Your task to perform on an android device: uninstall "Microsoft Authenticator" Image 0: 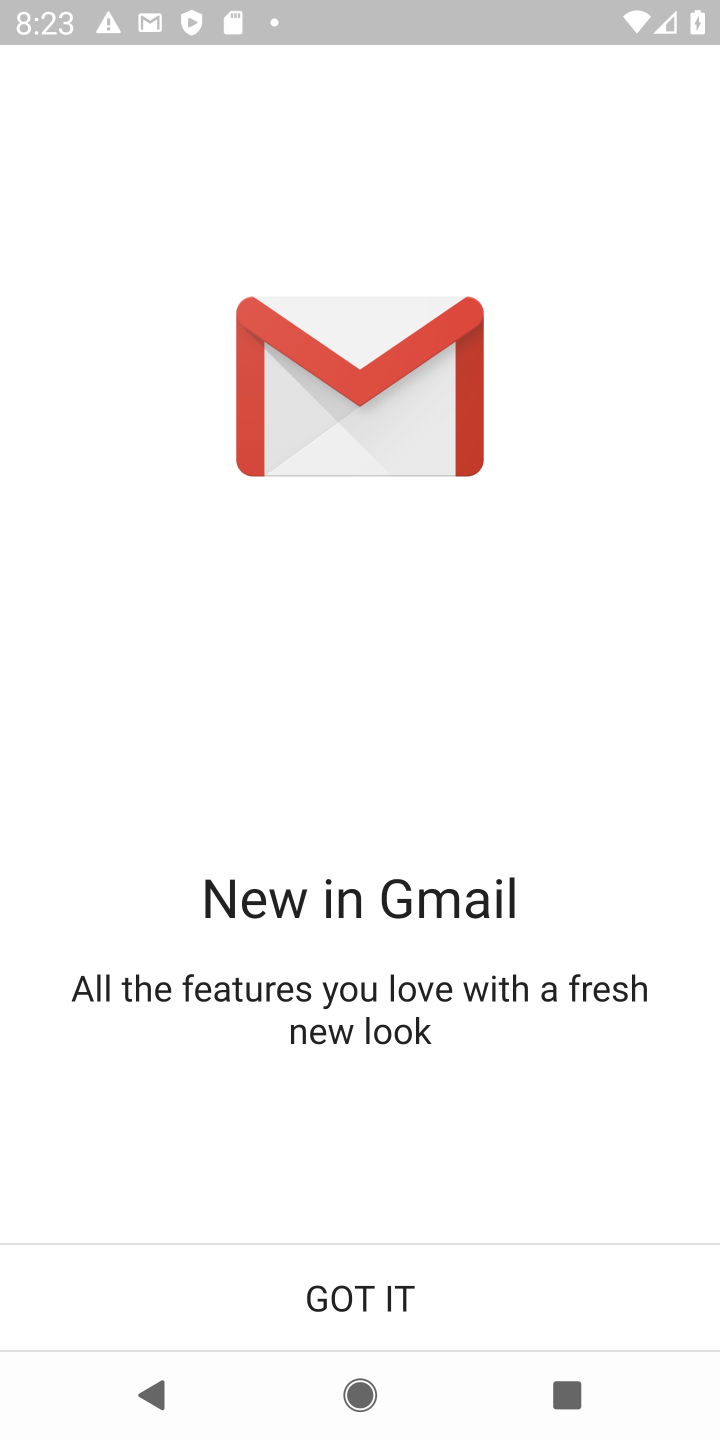
Step 0: press home button
Your task to perform on an android device: uninstall "Microsoft Authenticator" Image 1: 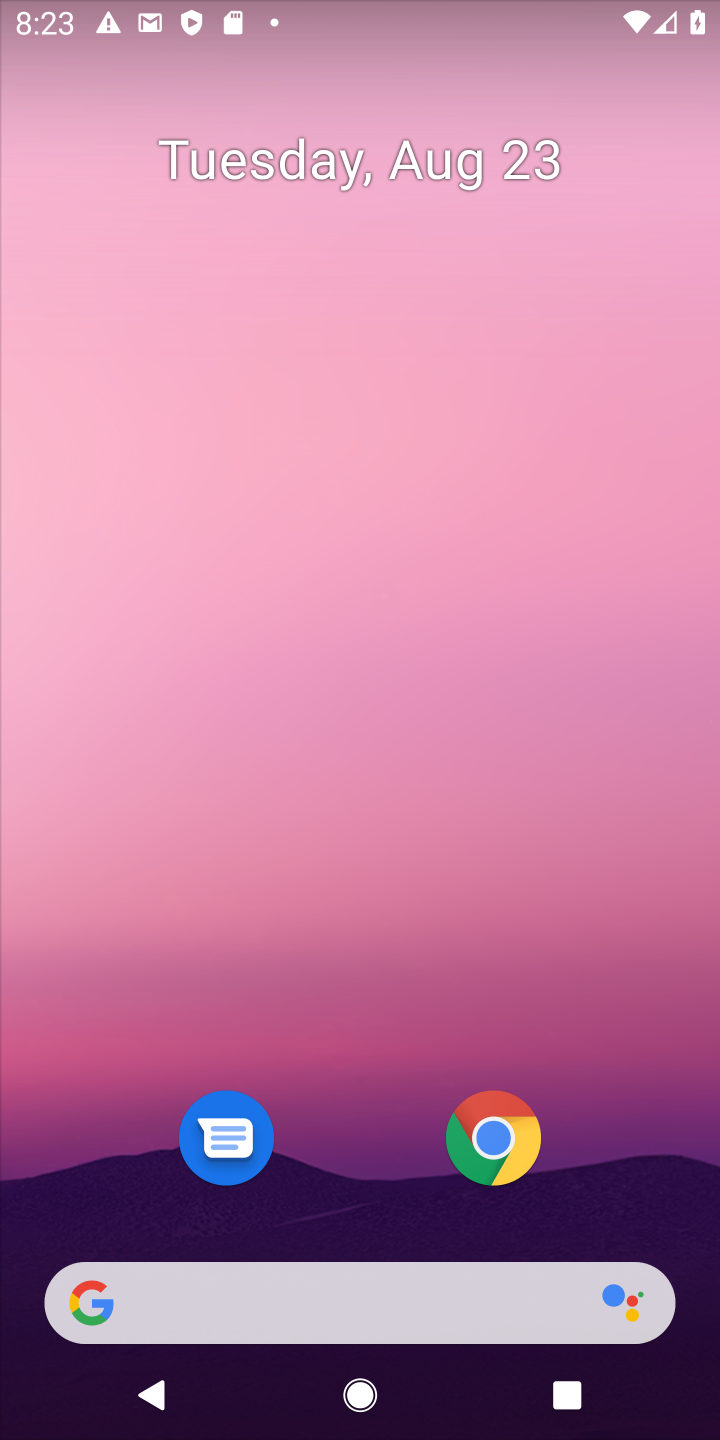
Step 1: drag from (629, 1127) to (643, 123)
Your task to perform on an android device: uninstall "Microsoft Authenticator" Image 2: 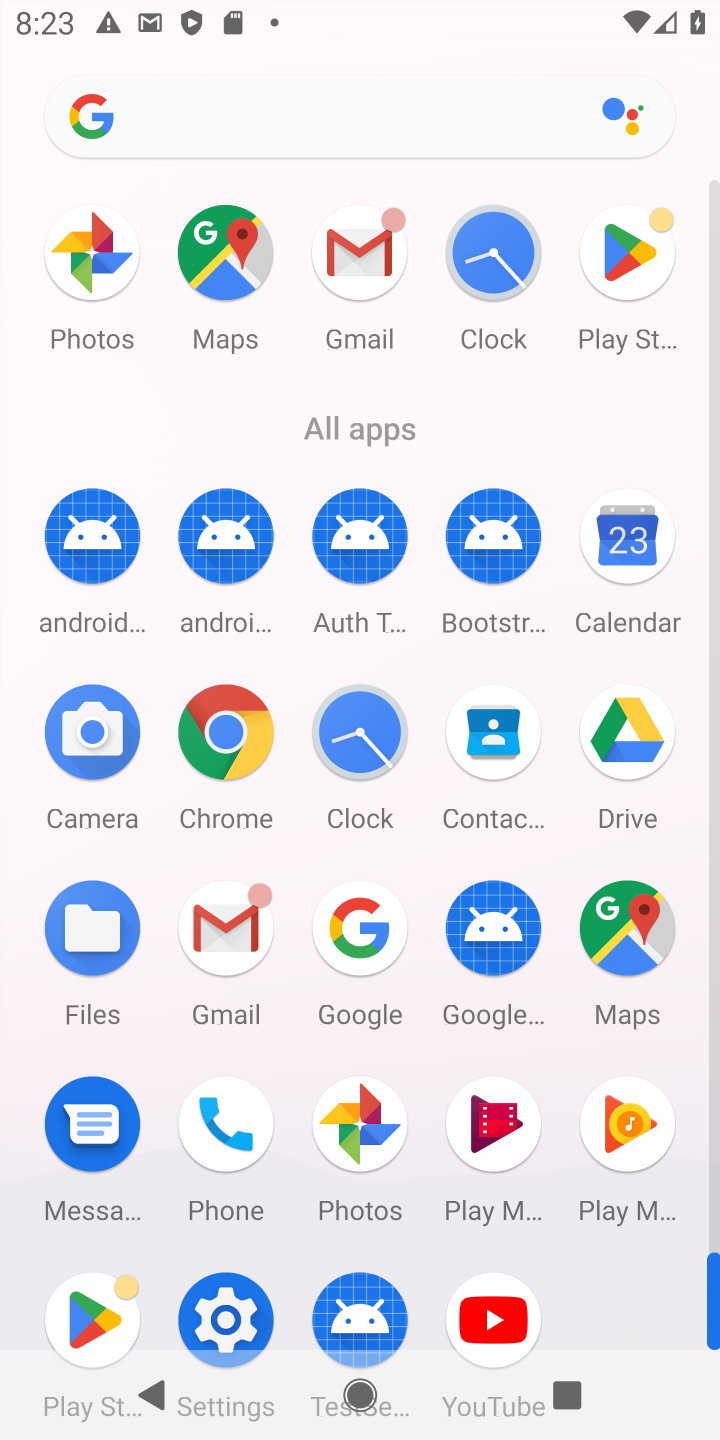
Step 2: click (616, 254)
Your task to perform on an android device: uninstall "Microsoft Authenticator" Image 3: 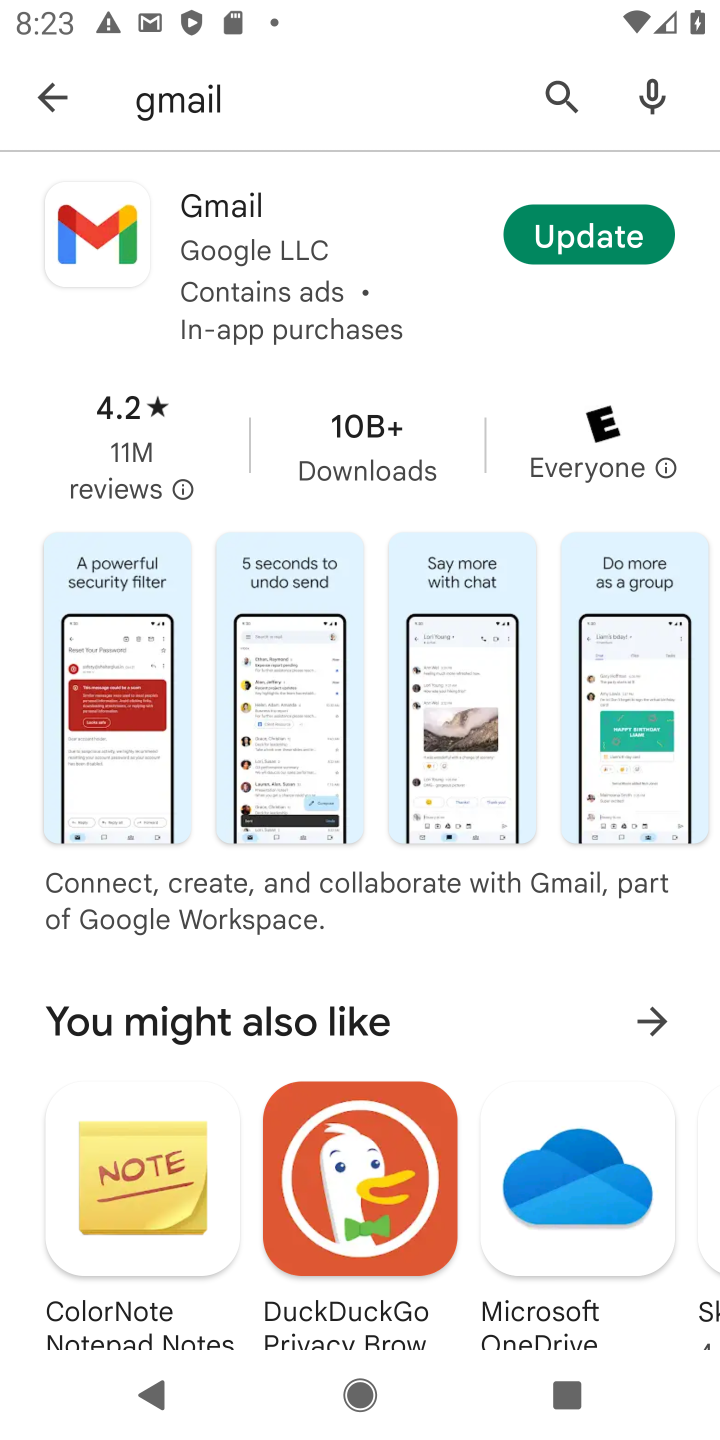
Step 3: press back button
Your task to perform on an android device: uninstall "Microsoft Authenticator" Image 4: 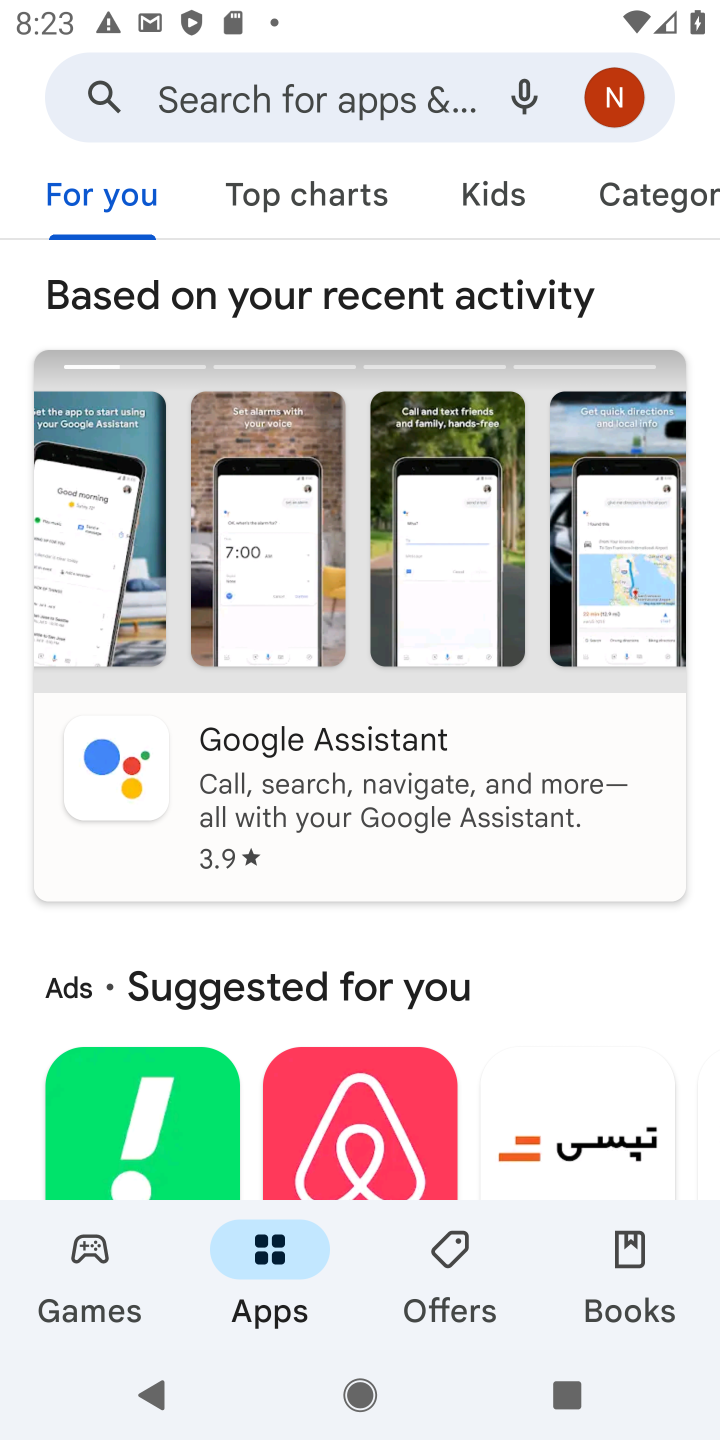
Step 4: click (359, 102)
Your task to perform on an android device: uninstall "Microsoft Authenticator" Image 5: 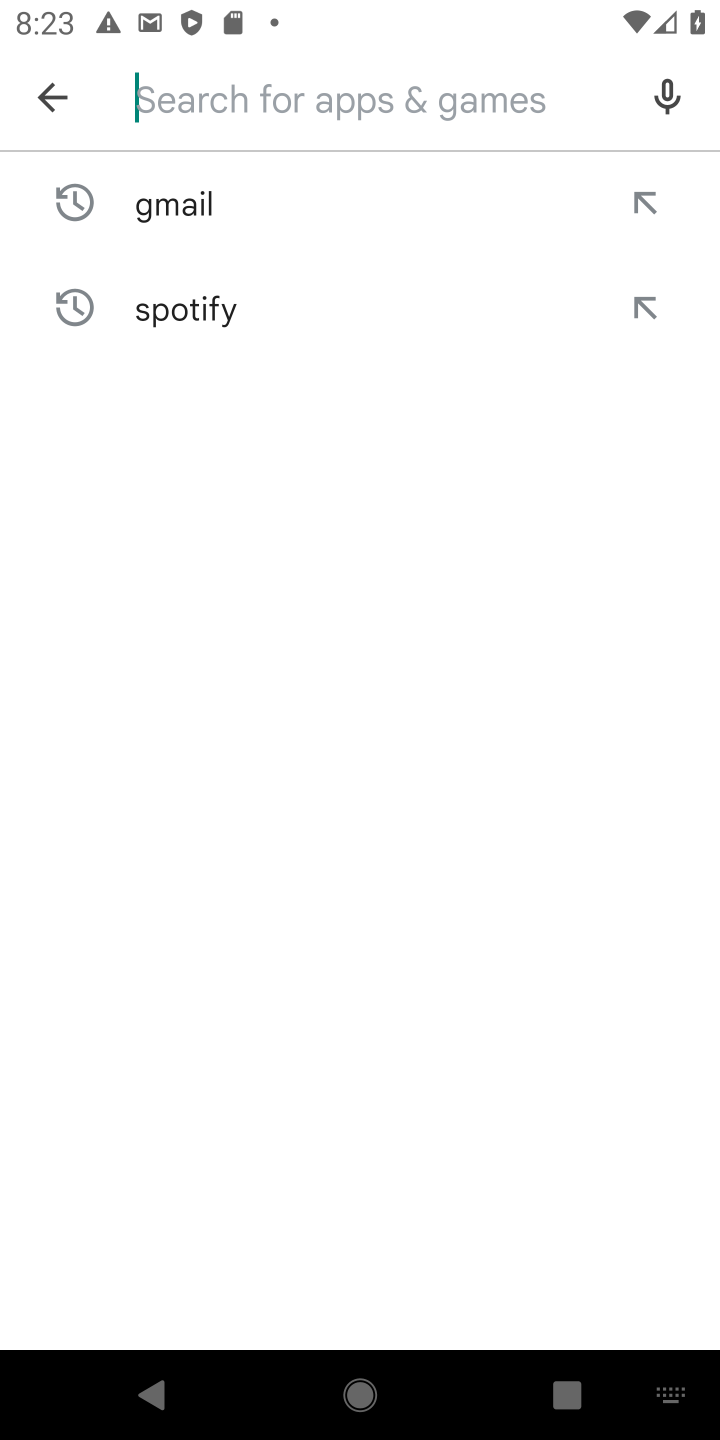
Step 5: press enter
Your task to perform on an android device: uninstall "Microsoft Authenticator" Image 6: 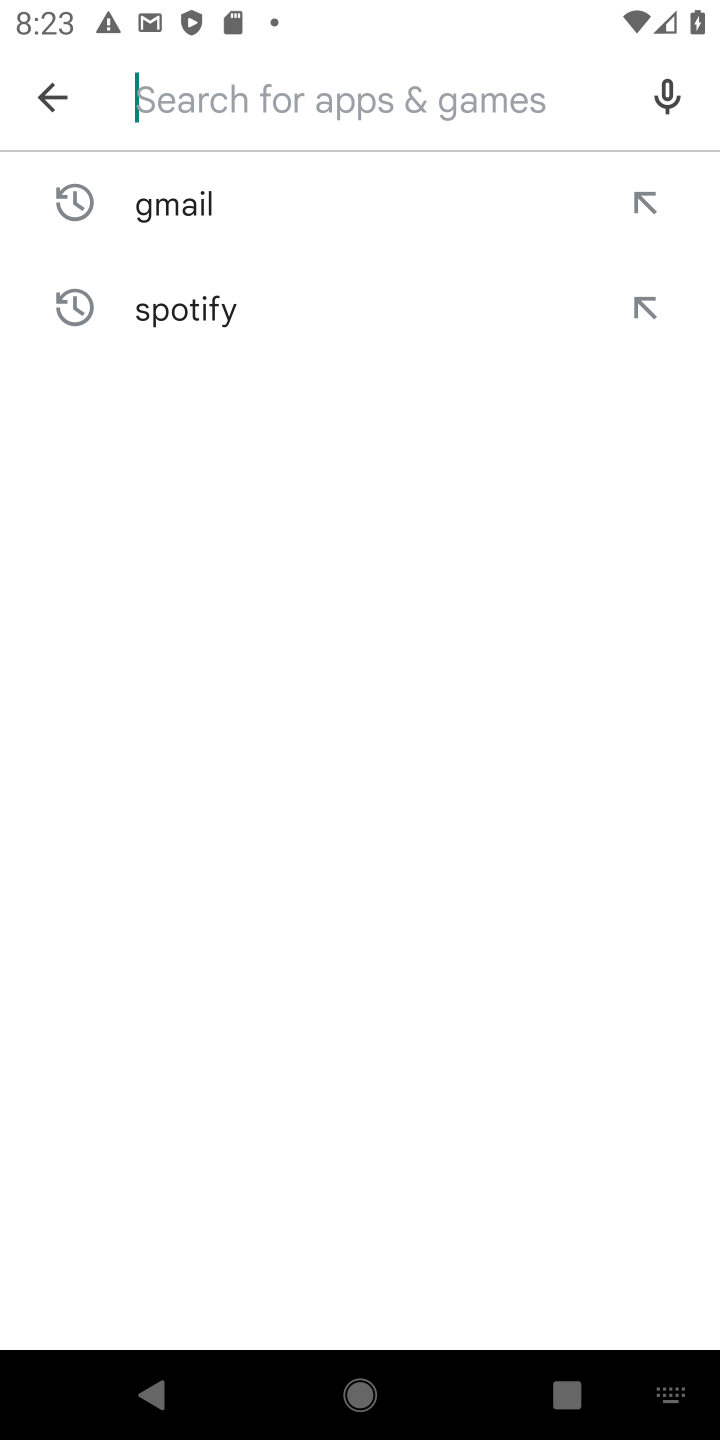
Step 6: type "Microsoft Authenticator"
Your task to perform on an android device: uninstall "Microsoft Authenticator" Image 7: 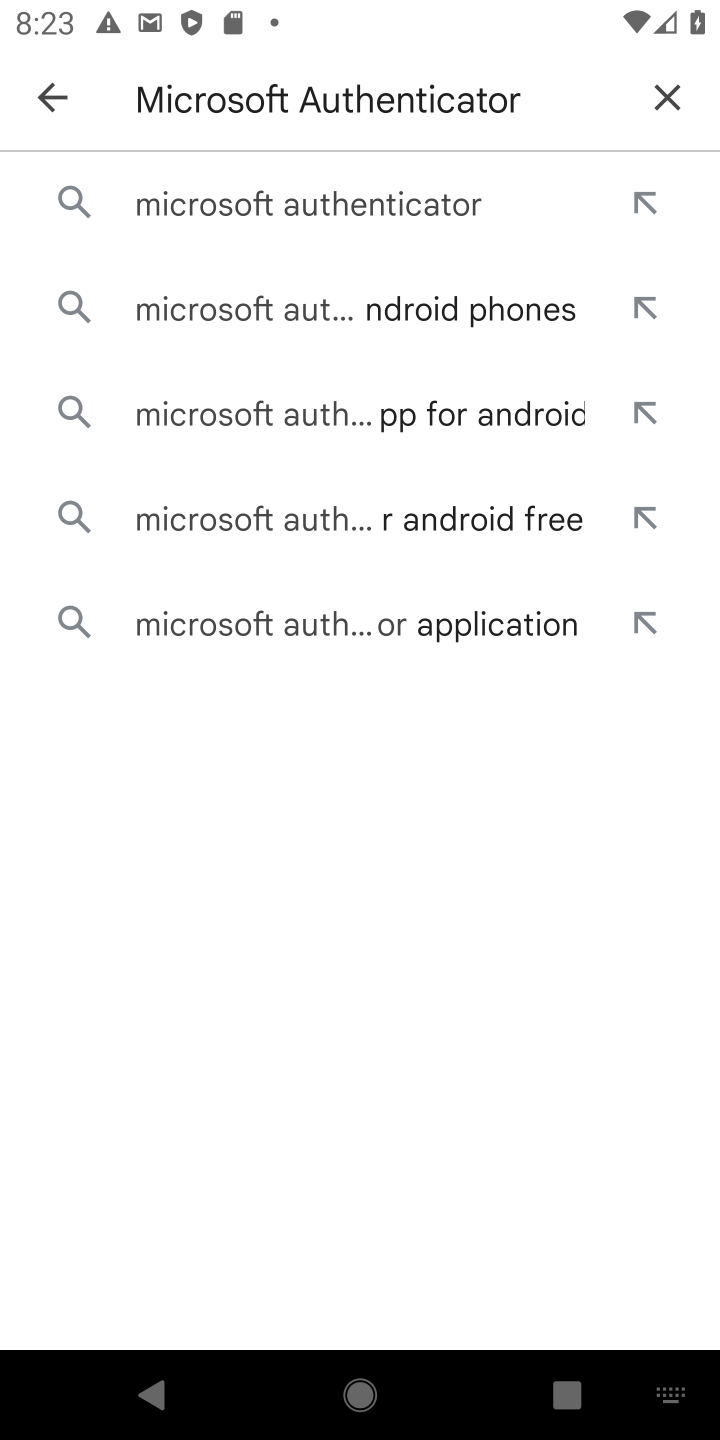
Step 7: click (369, 210)
Your task to perform on an android device: uninstall "Microsoft Authenticator" Image 8: 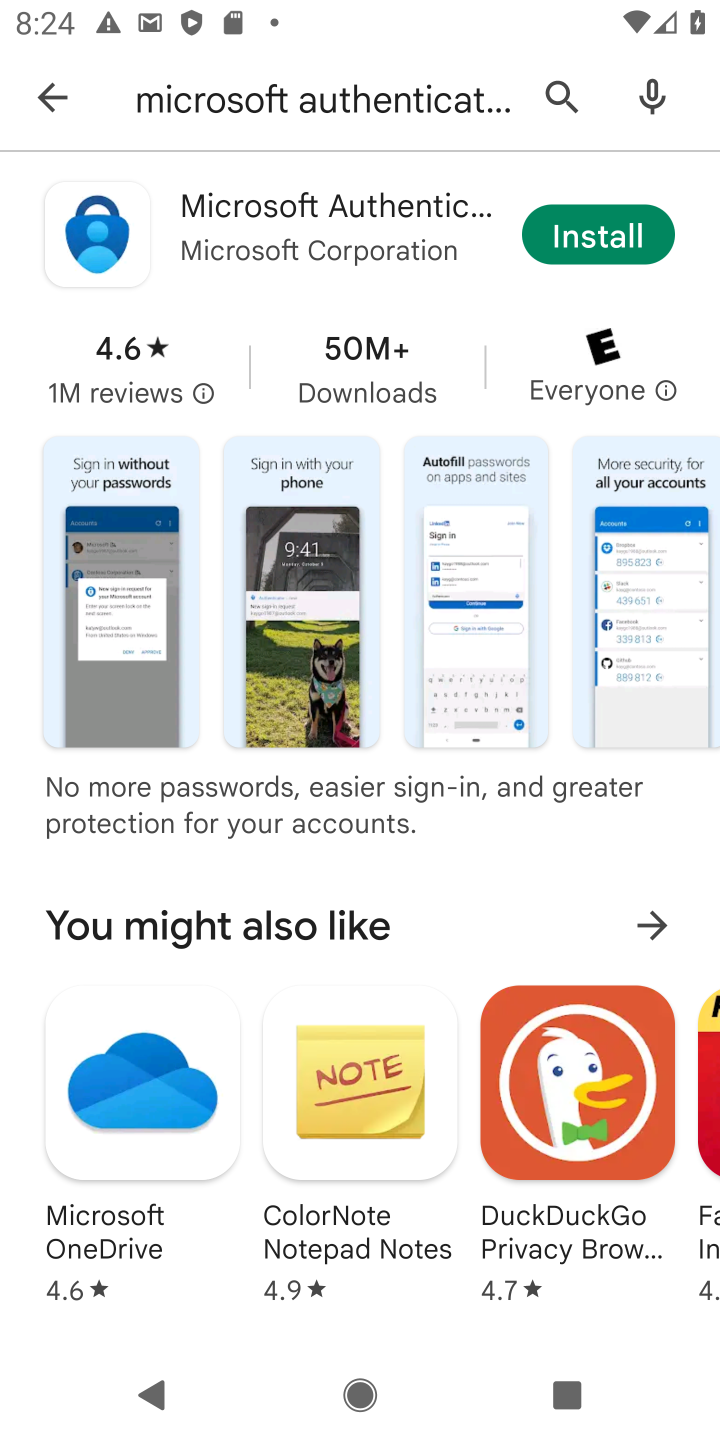
Step 8: task complete